Your task to perform on an android device: open chrome privacy settings Image 0: 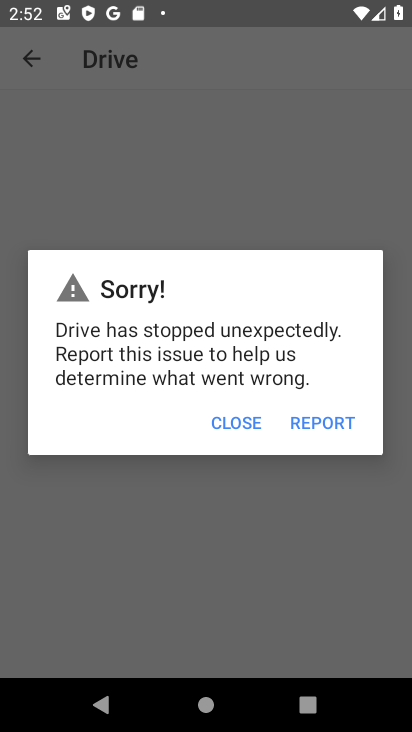
Step 0: press home button
Your task to perform on an android device: open chrome privacy settings Image 1: 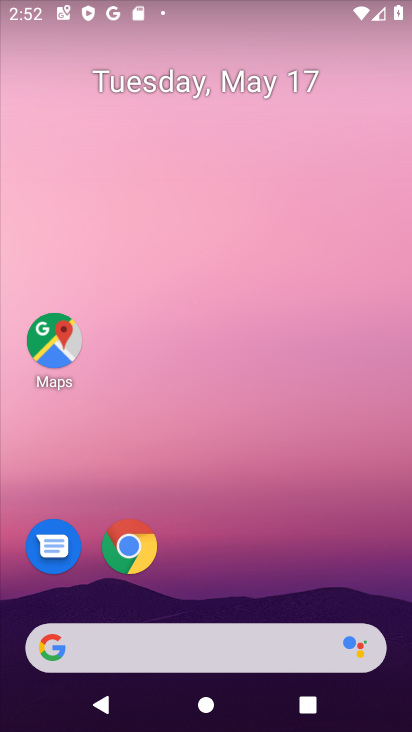
Step 1: click (345, 445)
Your task to perform on an android device: open chrome privacy settings Image 2: 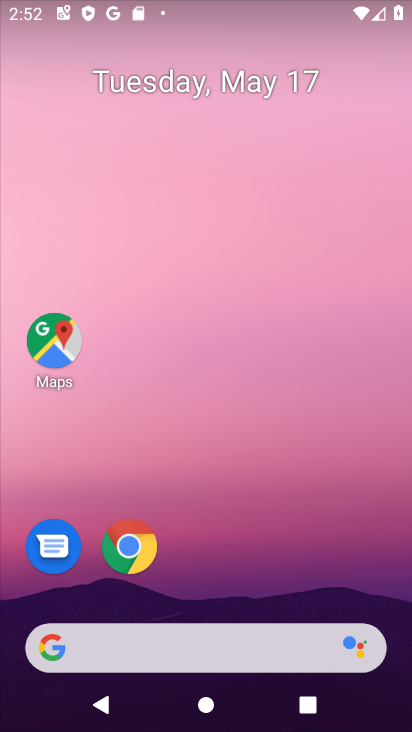
Step 2: drag from (396, 620) to (354, 461)
Your task to perform on an android device: open chrome privacy settings Image 3: 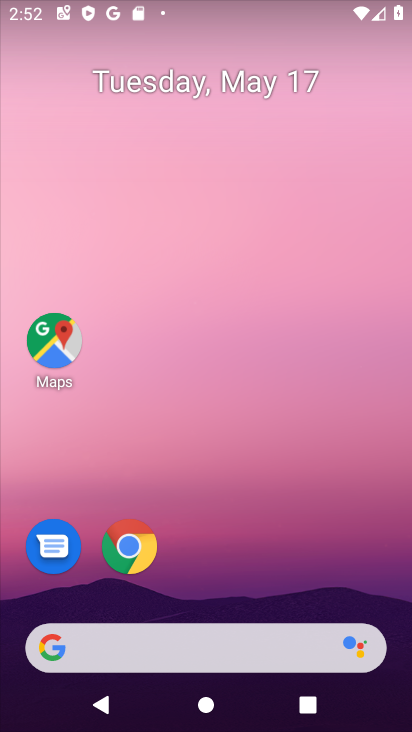
Step 3: drag from (362, 554) to (331, 410)
Your task to perform on an android device: open chrome privacy settings Image 4: 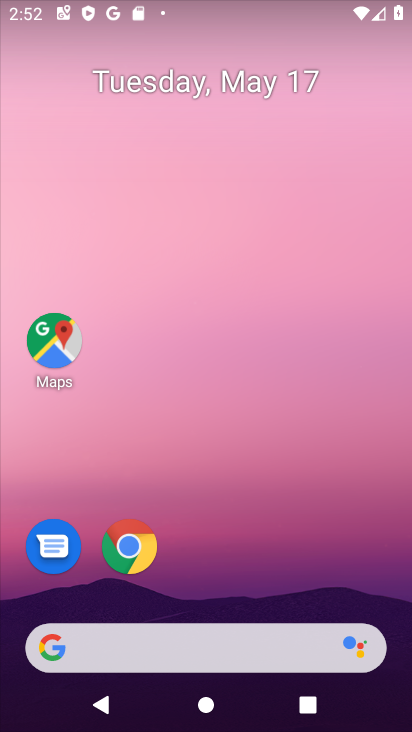
Step 4: drag from (394, 690) to (350, 446)
Your task to perform on an android device: open chrome privacy settings Image 5: 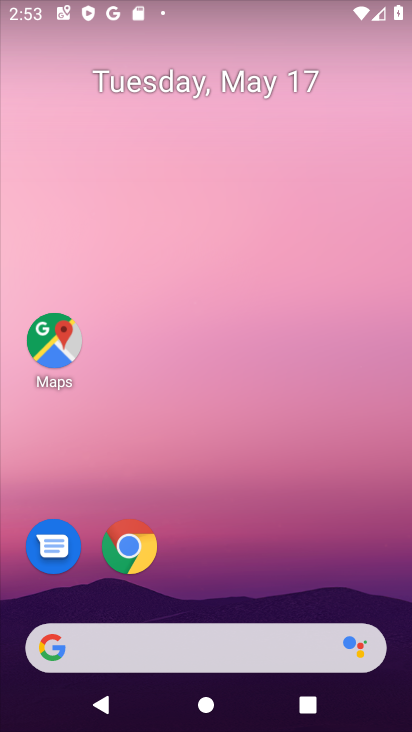
Step 5: drag from (396, 670) to (358, 238)
Your task to perform on an android device: open chrome privacy settings Image 6: 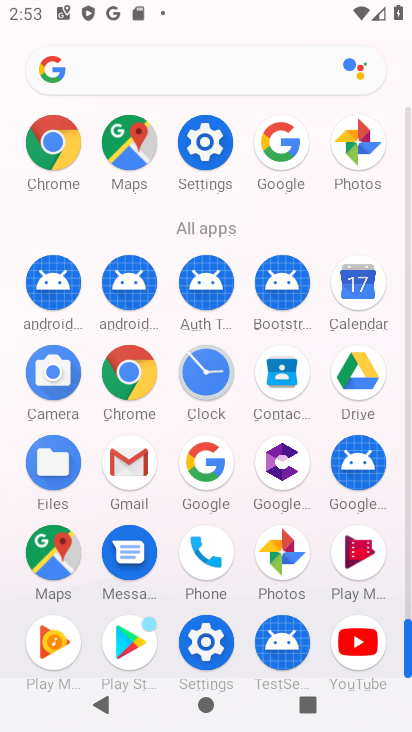
Step 6: click (130, 374)
Your task to perform on an android device: open chrome privacy settings Image 7: 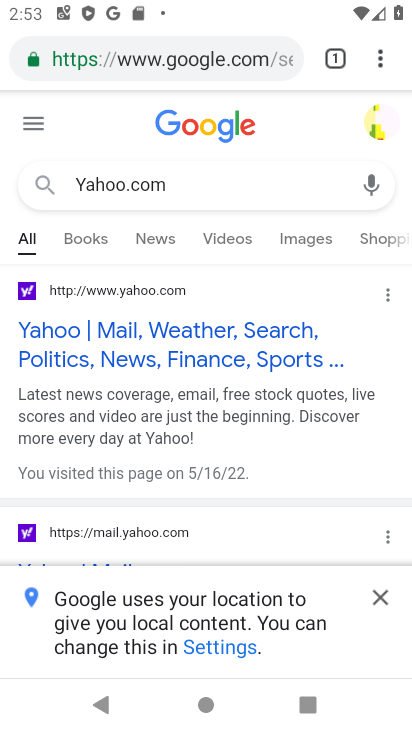
Step 7: click (377, 56)
Your task to perform on an android device: open chrome privacy settings Image 8: 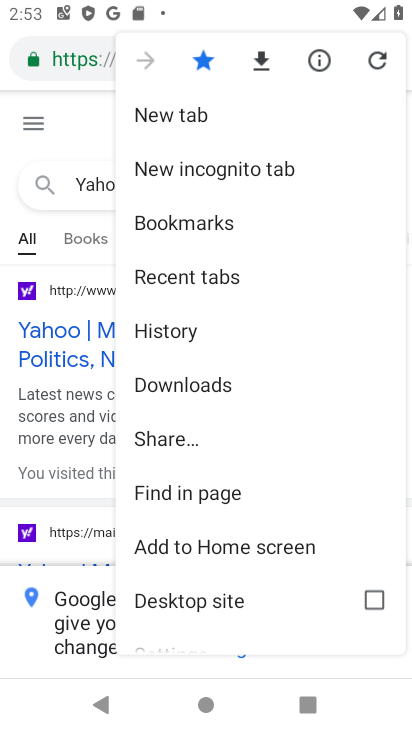
Step 8: drag from (341, 495) to (326, 324)
Your task to perform on an android device: open chrome privacy settings Image 9: 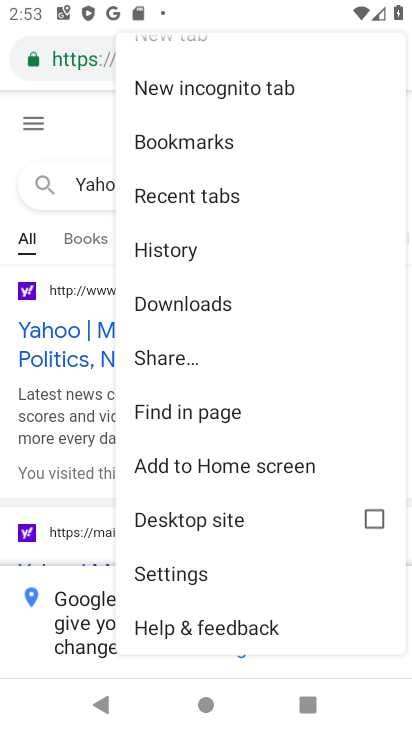
Step 9: click (161, 567)
Your task to perform on an android device: open chrome privacy settings Image 10: 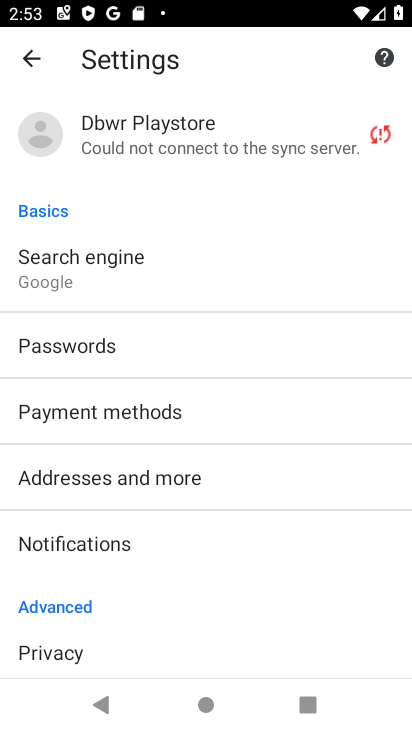
Step 10: drag from (259, 579) to (264, 477)
Your task to perform on an android device: open chrome privacy settings Image 11: 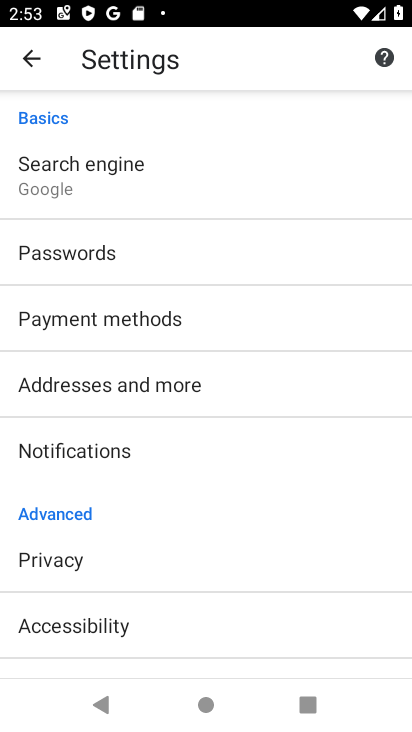
Step 11: click (41, 556)
Your task to perform on an android device: open chrome privacy settings Image 12: 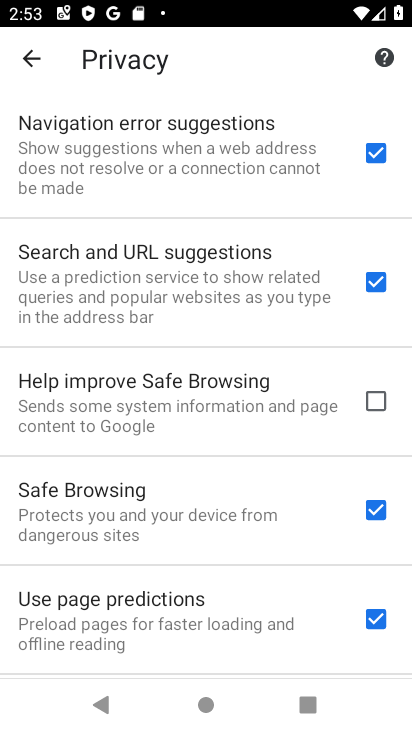
Step 12: task complete